Your task to perform on an android device: Search for sushi restaurants on Maps Image 0: 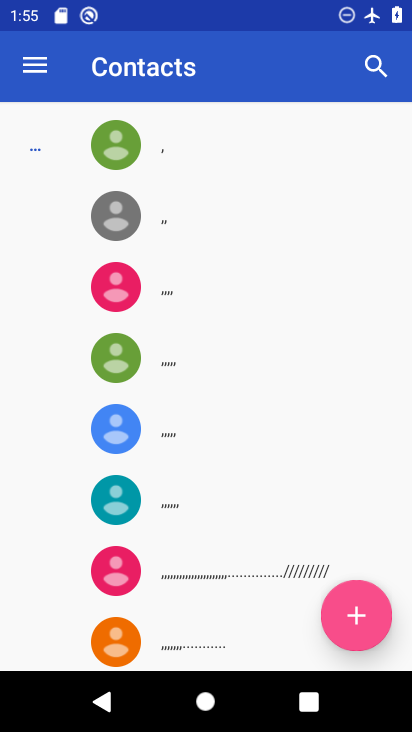
Step 0: press home button
Your task to perform on an android device: Search for sushi restaurants on Maps Image 1: 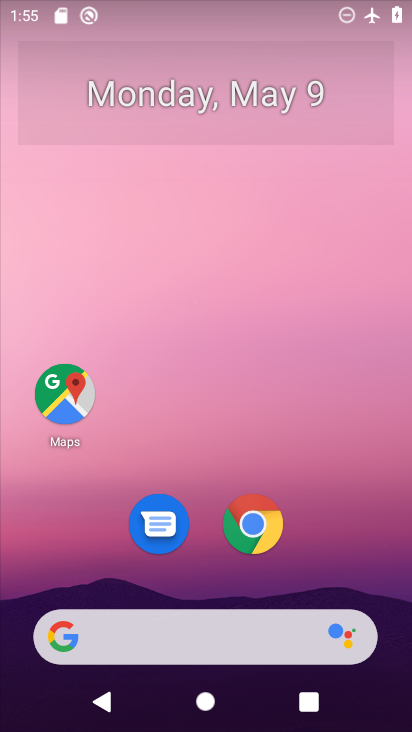
Step 1: click (61, 394)
Your task to perform on an android device: Search for sushi restaurants on Maps Image 2: 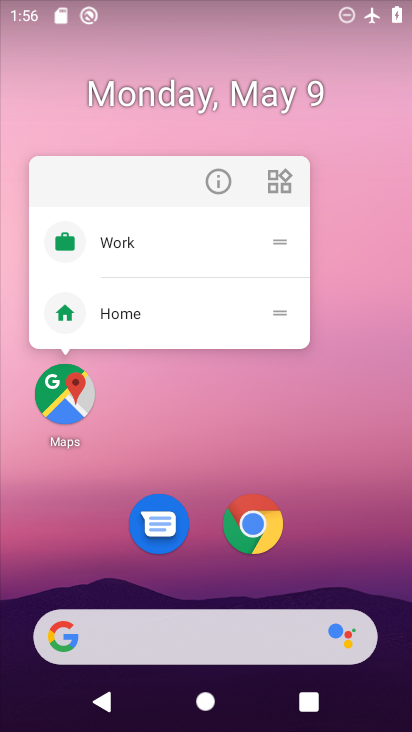
Step 2: click (61, 394)
Your task to perform on an android device: Search for sushi restaurants on Maps Image 3: 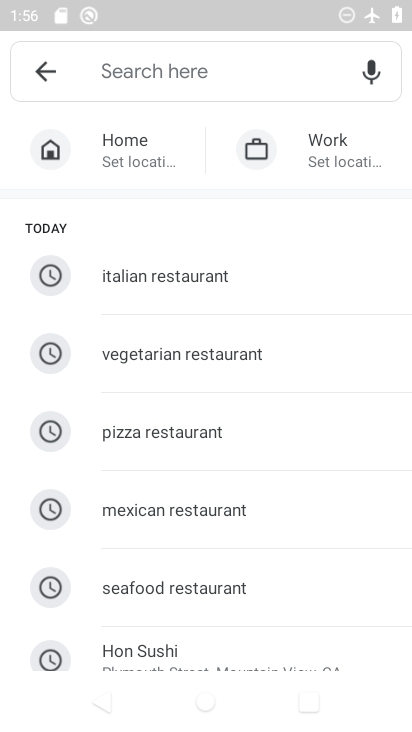
Step 3: drag from (215, 554) to (272, 574)
Your task to perform on an android device: Search for sushi restaurants on Maps Image 4: 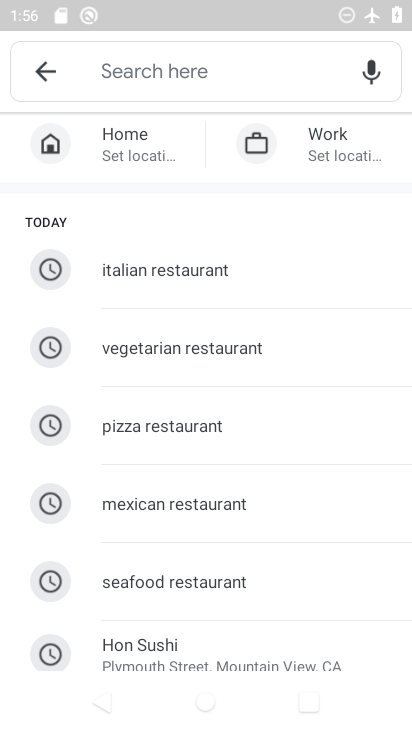
Step 4: click (224, 58)
Your task to perform on an android device: Search for sushi restaurants on Maps Image 5: 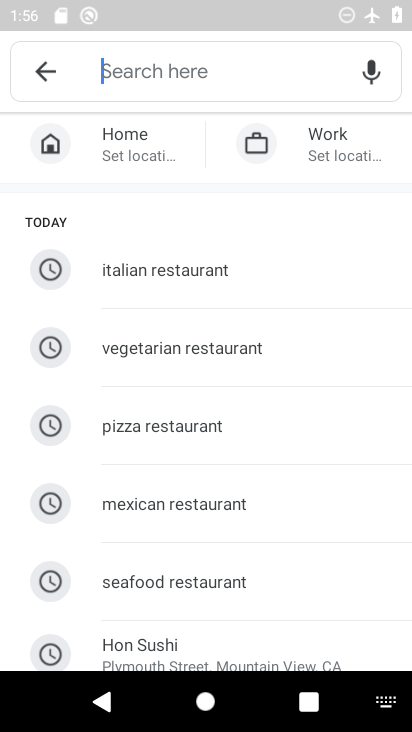
Step 5: type "sushi restaurents"
Your task to perform on an android device: Search for sushi restaurants on Maps Image 6: 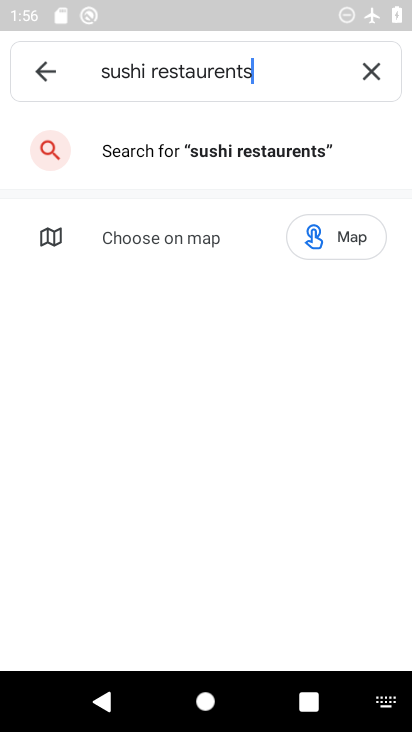
Step 6: click (253, 133)
Your task to perform on an android device: Search for sushi restaurants on Maps Image 7: 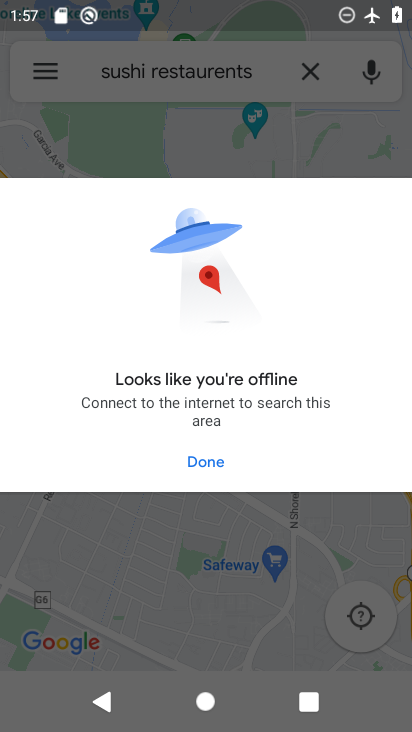
Step 7: task complete